Your task to perform on an android device: turn on javascript in the chrome app Image 0: 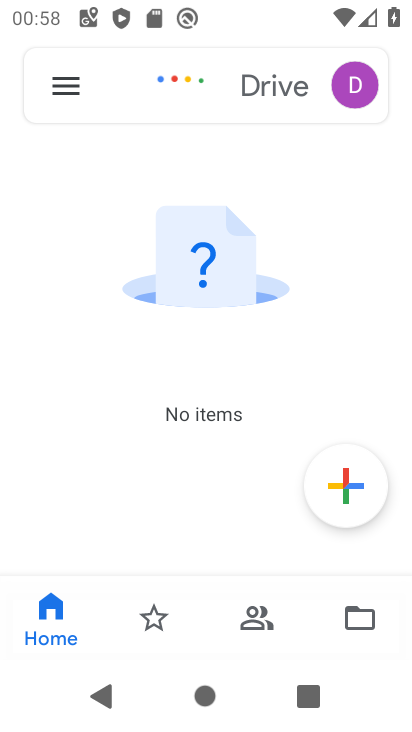
Step 0: press back button
Your task to perform on an android device: turn on javascript in the chrome app Image 1: 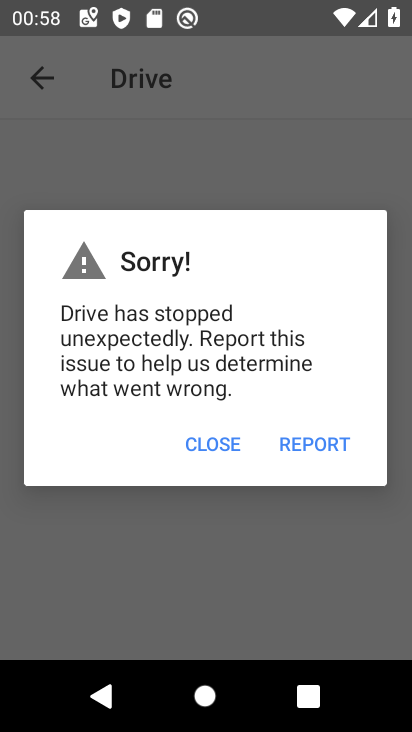
Step 1: press home button
Your task to perform on an android device: turn on javascript in the chrome app Image 2: 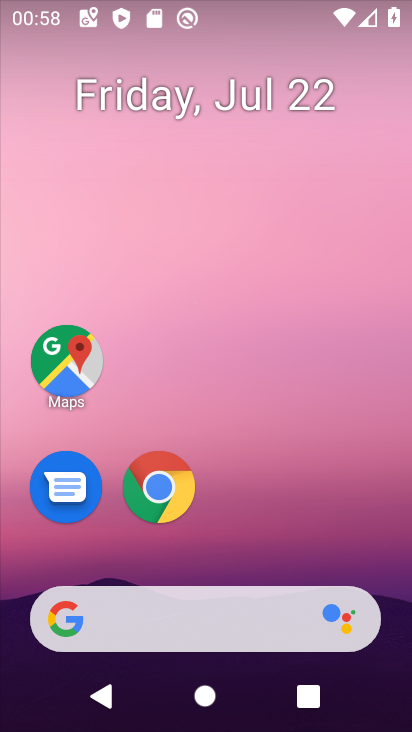
Step 2: click (154, 496)
Your task to perform on an android device: turn on javascript in the chrome app Image 3: 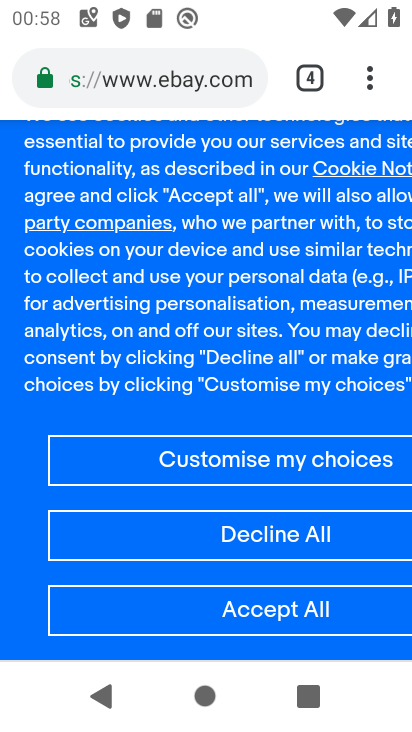
Step 3: drag from (373, 76) to (166, 540)
Your task to perform on an android device: turn on javascript in the chrome app Image 4: 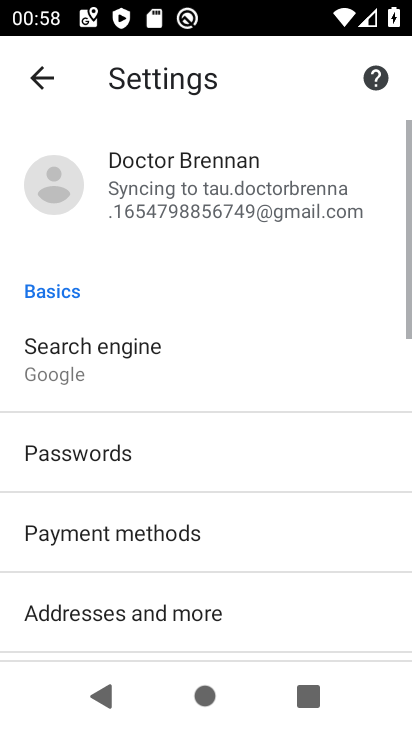
Step 4: drag from (171, 553) to (271, 38)
Your task to perform on an android device: turn on javascript in the chrome app Image 5: 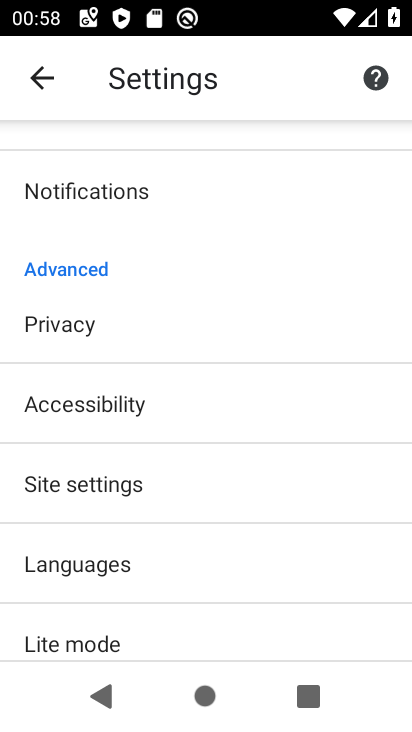
Step 5: click (110, 496)
Your task to perform on an android device: turn on javascript in the chrome app Image 6: 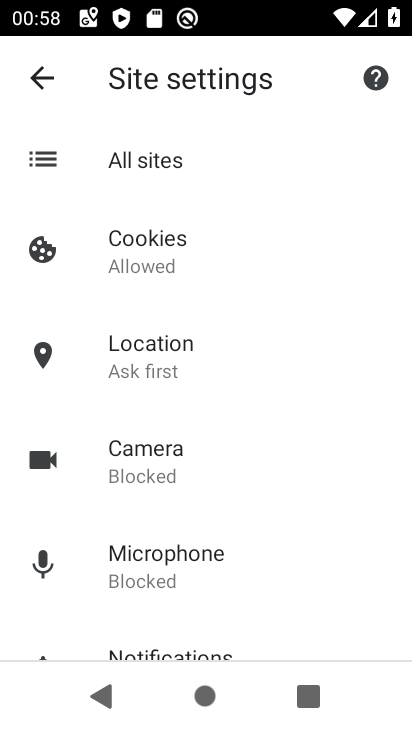
Step 6: drag from (154, 581) to (262, 153)
Your task to perform on an android device: turn on javascript in the chrome app Image 7: 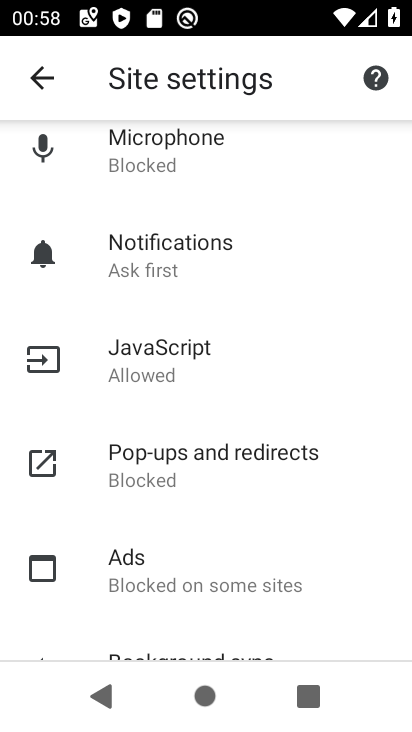
Step 7: click (143, 362)
Your task to perform on an android device: turn on javascript in the chrome app Image 8: 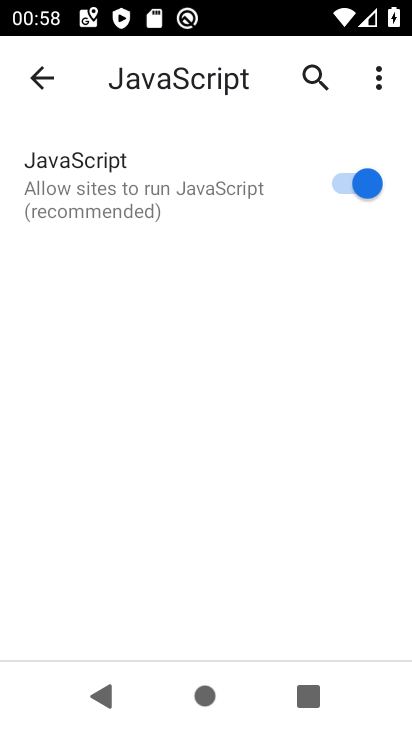
Step 8: task complete